Your task to perform on an android device: Search for logitech g910 on amazon.com, select the first entry, add it to the cart, then select checkout. Image 0: 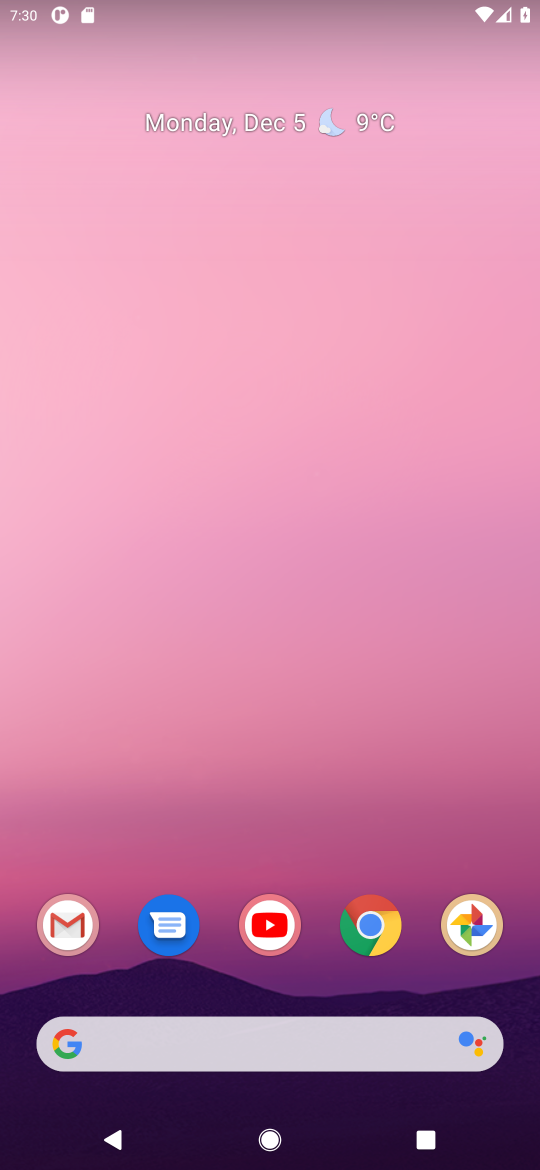
Step 0: click (376, 931)
Your task to perform on an android device: Search for logitech g910 on amazon.com, select the first entry, add it to the cart, then select checkout. Image 1: 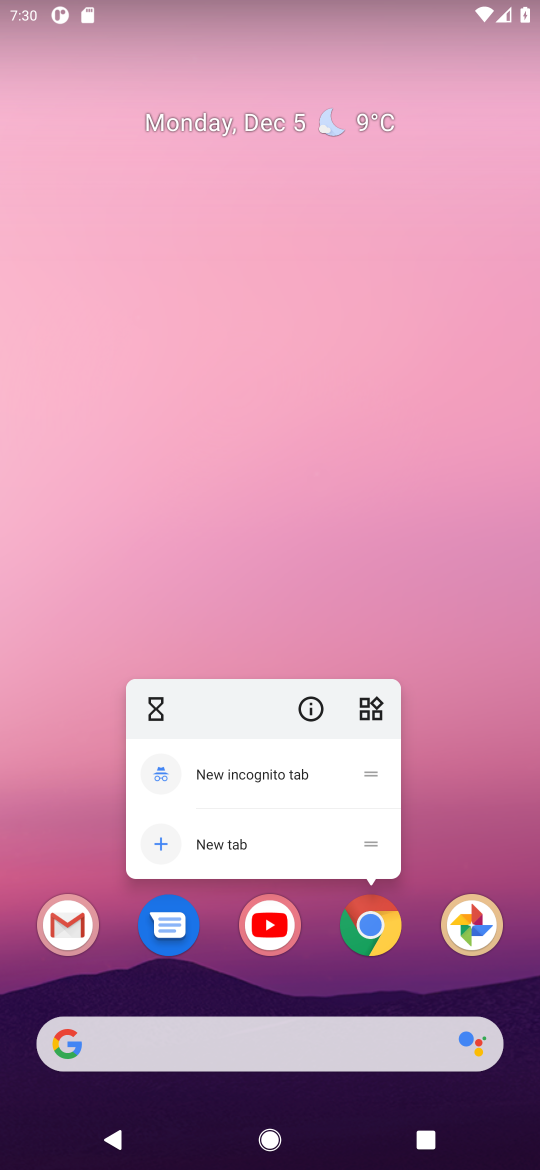
Step 1: click (370, 929)
Your task to perform on an android device: Search for logitech g910 on amazon.com, select the first entry, add it to the cart, then select checkout. Image 2: 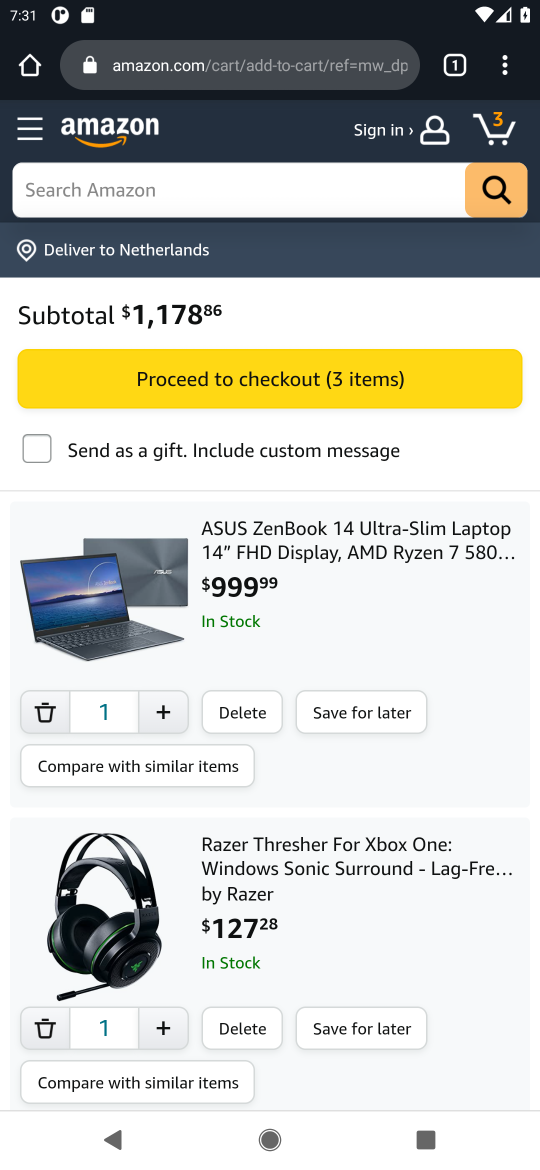
Step 2: click (172, 200)
Your task to perform on an android device: Search for logitech g910 on amazon.com, select the first entry, add it to the cart, then select checkout. Image 3: 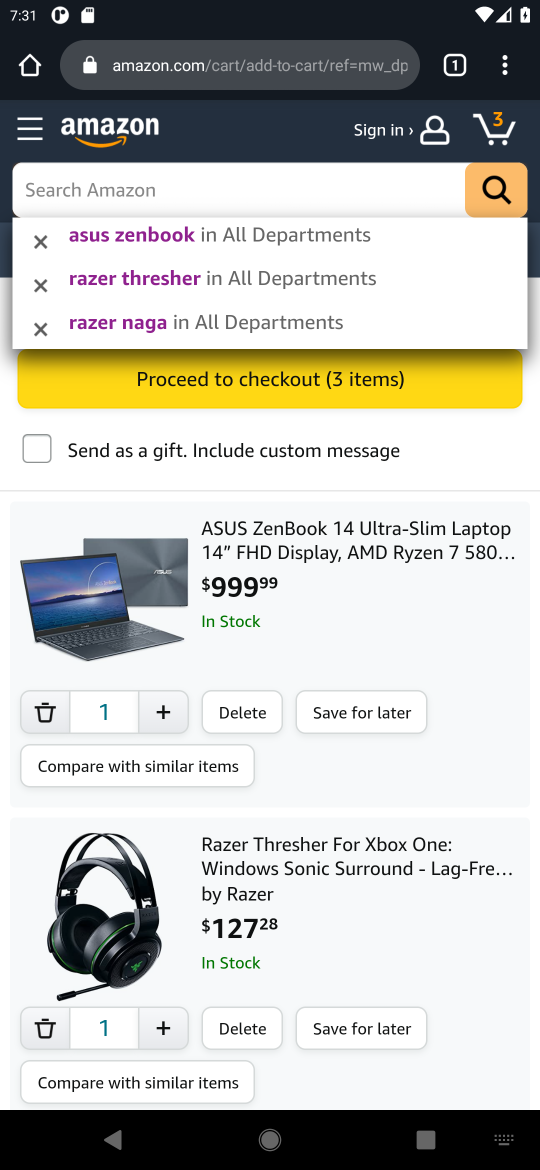
Step 3: type "logitech g910"
Your task to perform on an android device: Search for logitech g910 on amazon.com, select the first entry, add it to the cart, then select checkout. Image 4: 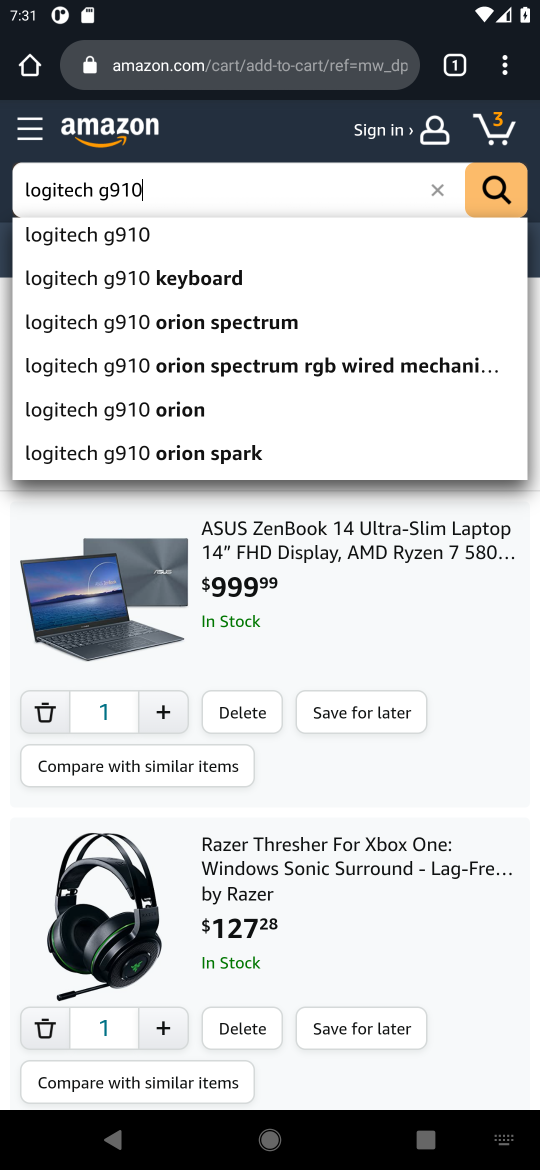
Step 4: click (92, 246)
Your task to perform on an android device: Search for logitech g910 on amazon.com, select the first entry, add it to the cart, then select checkout. Image 5: 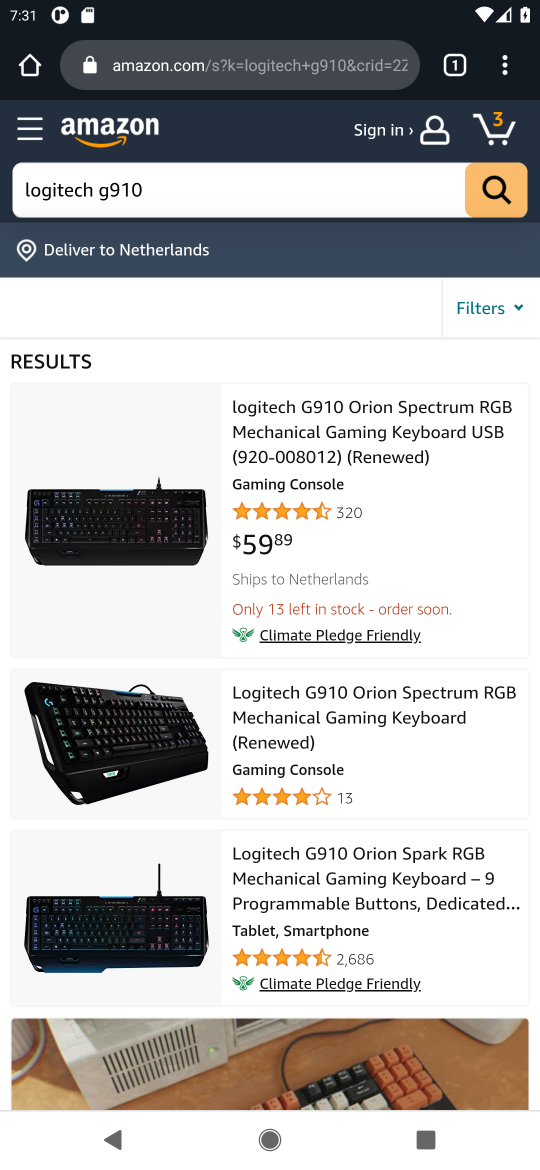
Step 5: click (314, 462)
Your task to perform on an android device: Search for logitech g910 on amazon.com, select the first entry, add it to the cart, then select checkout. Image 6: 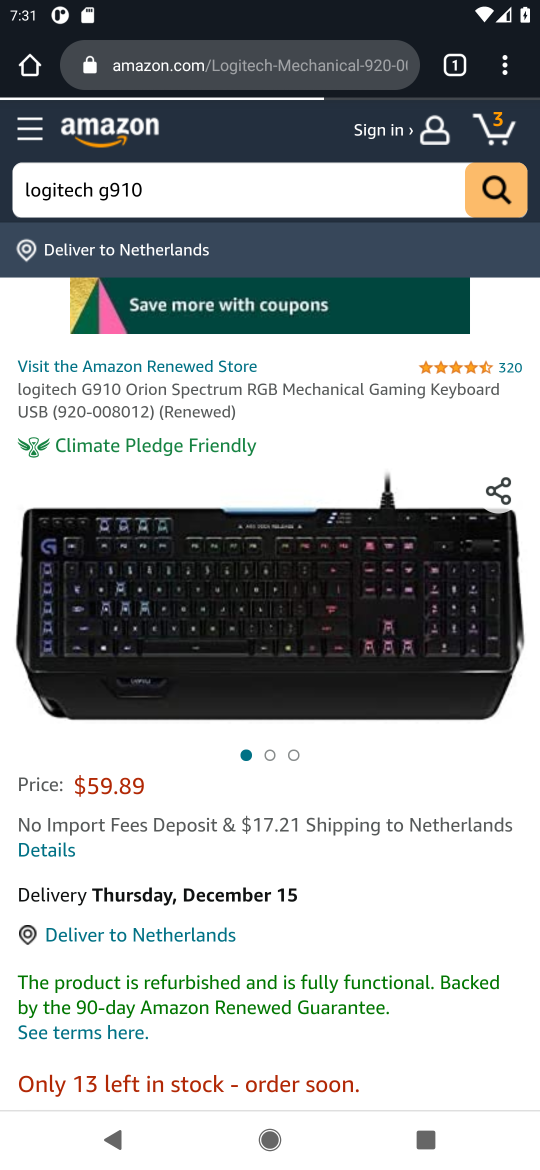
Step 6: drag from (354, 802) to (346, 306)
Your task to perform on an android device: Search for logitech g910 on amazon.com, select the first entry, add it to the cart, then select checkout. Image 7: 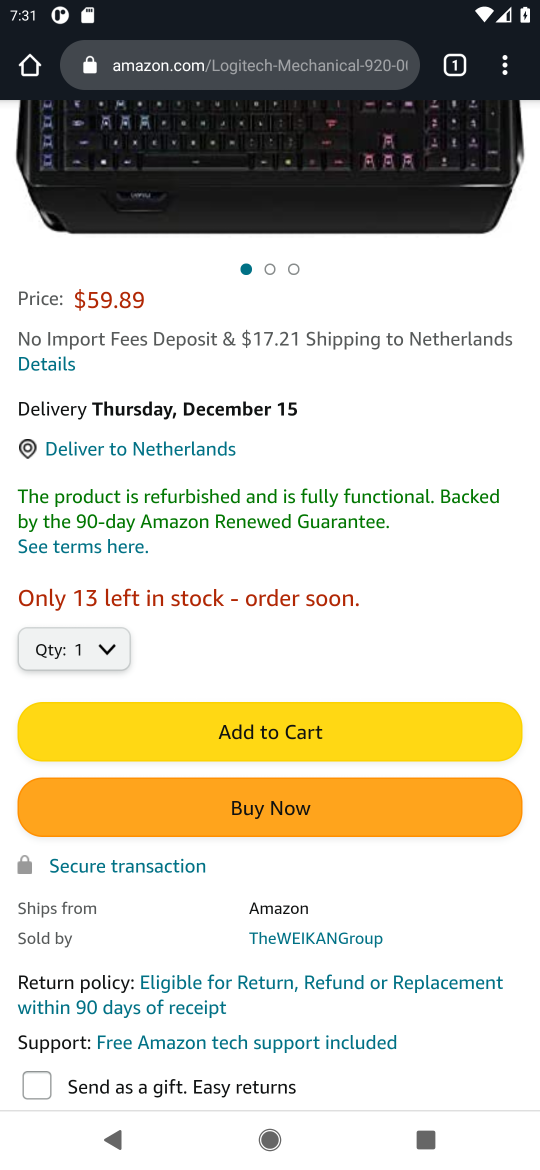
Step 7: click (238, 725)
Your task to perform on an android device: Search for logitech g910 on amazon.com, select the first entry, add it to the cart, then select checkout. Image 8: 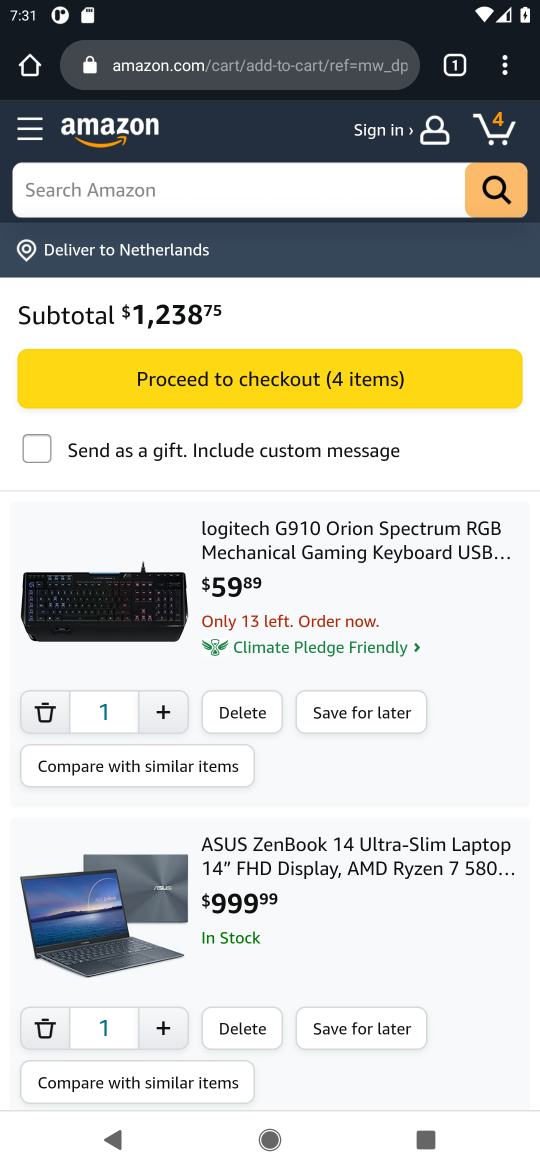
Step 8: click (230, 386)
Your task to perform on an android device: Search for logitech g910 on amazon.com, select the first entry, add it to the cart, then select checkout. Image 9: 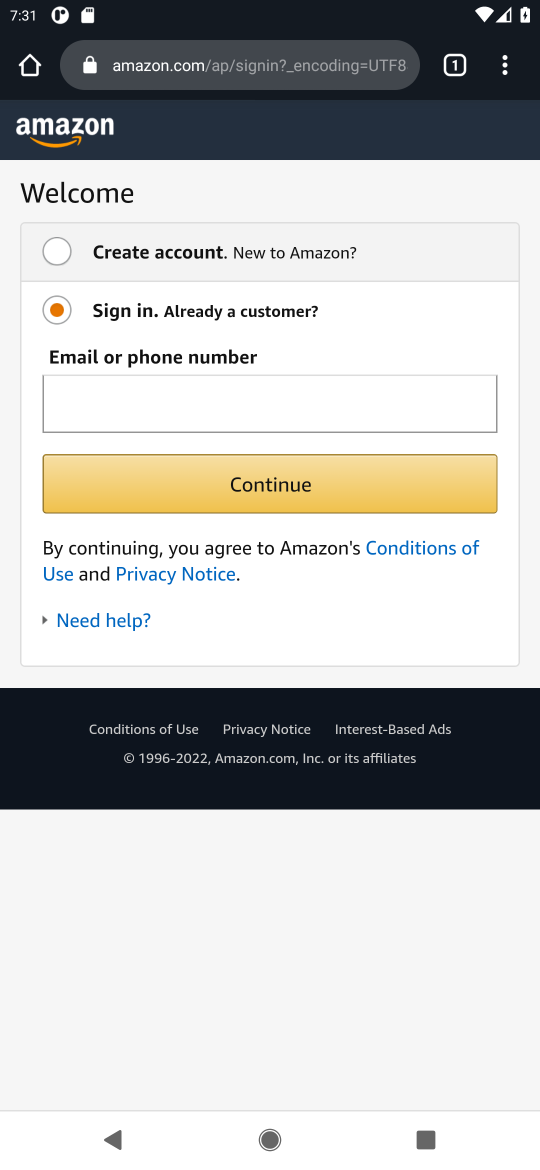
Step 9: task complete